Your task to perform on an android device: What is the speed of a rocket? Image 0: 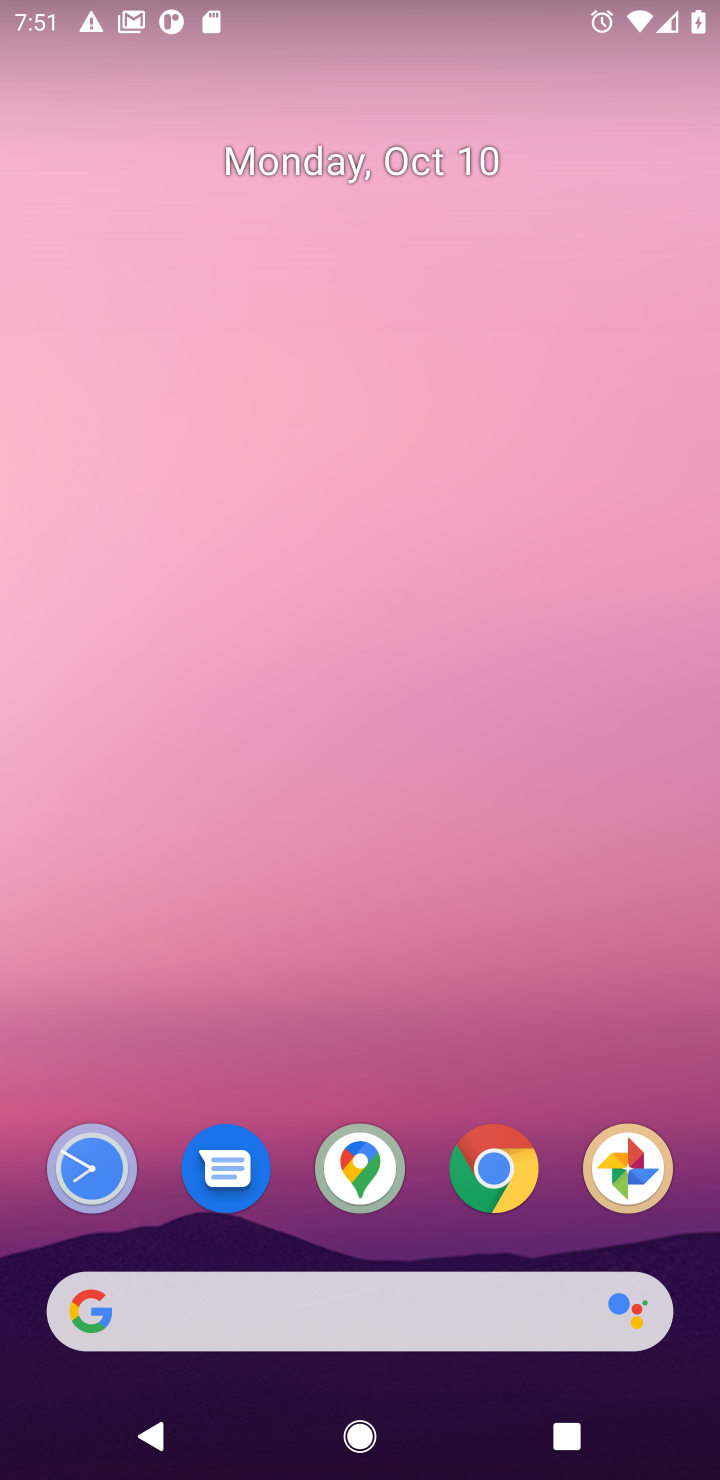
Step 0: click (501, 1166)
Your task to perform on an android device: What is the speed of a rocket? Image 1: 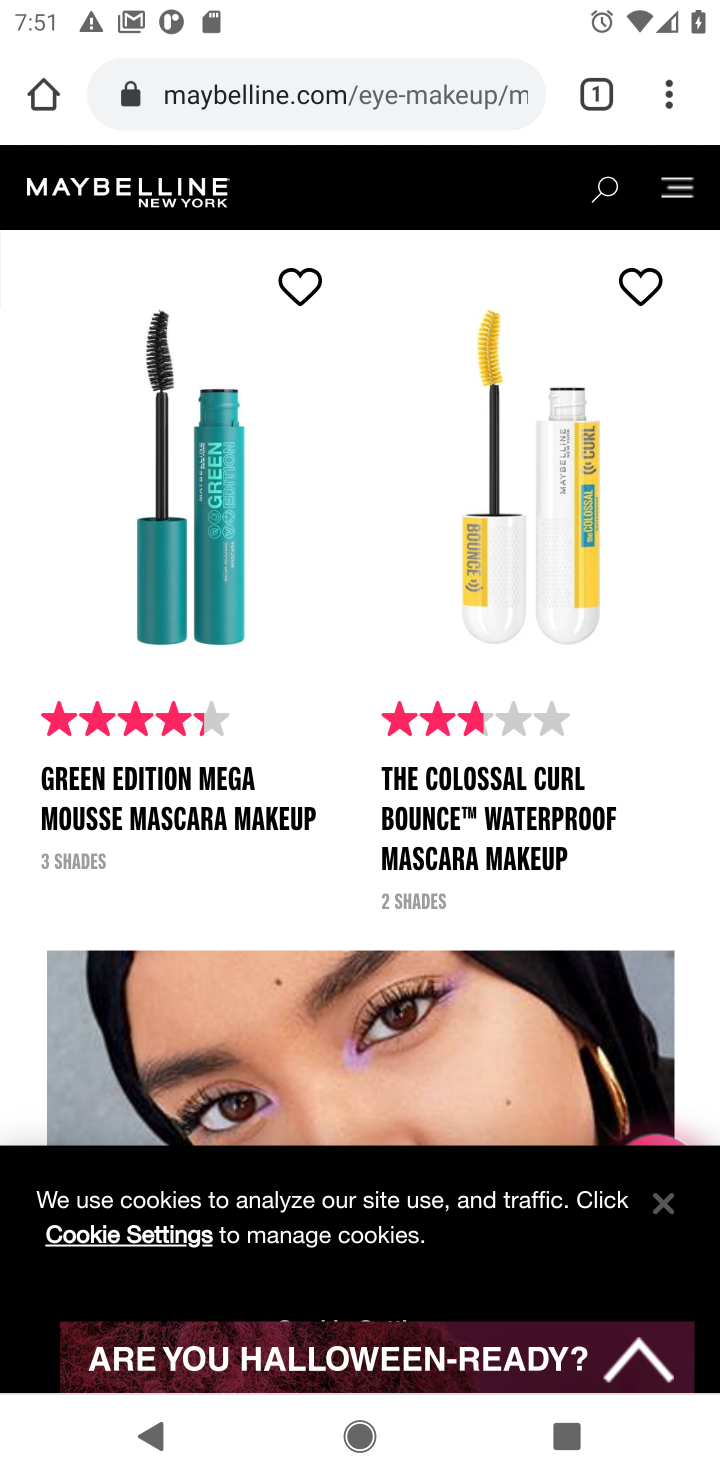
Step 1: click (277, 105)
Your task to perform on an android device: What is the speed of a rocket? Image 2: 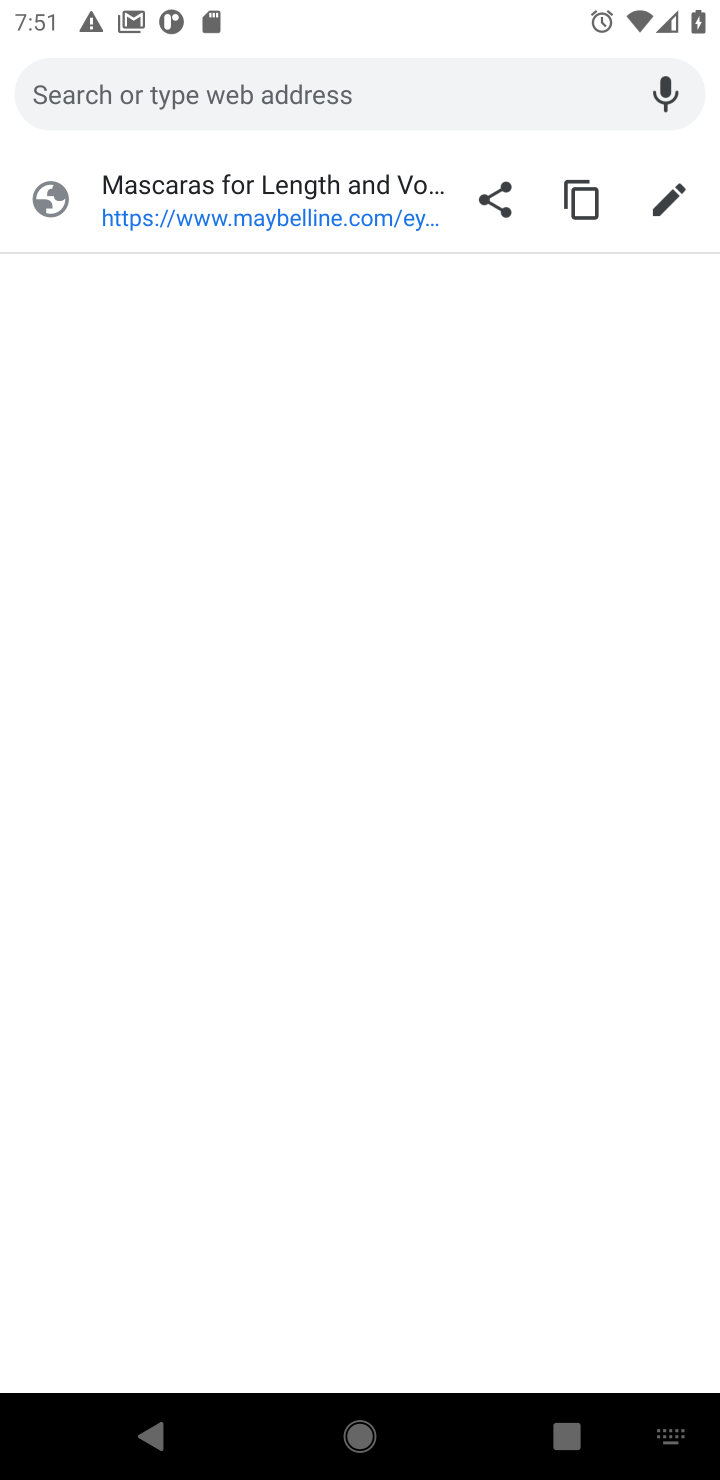
Step 2: type "speed of rocket"
Your task to perform on an android device: What is the speed of a rocket? Image 3: 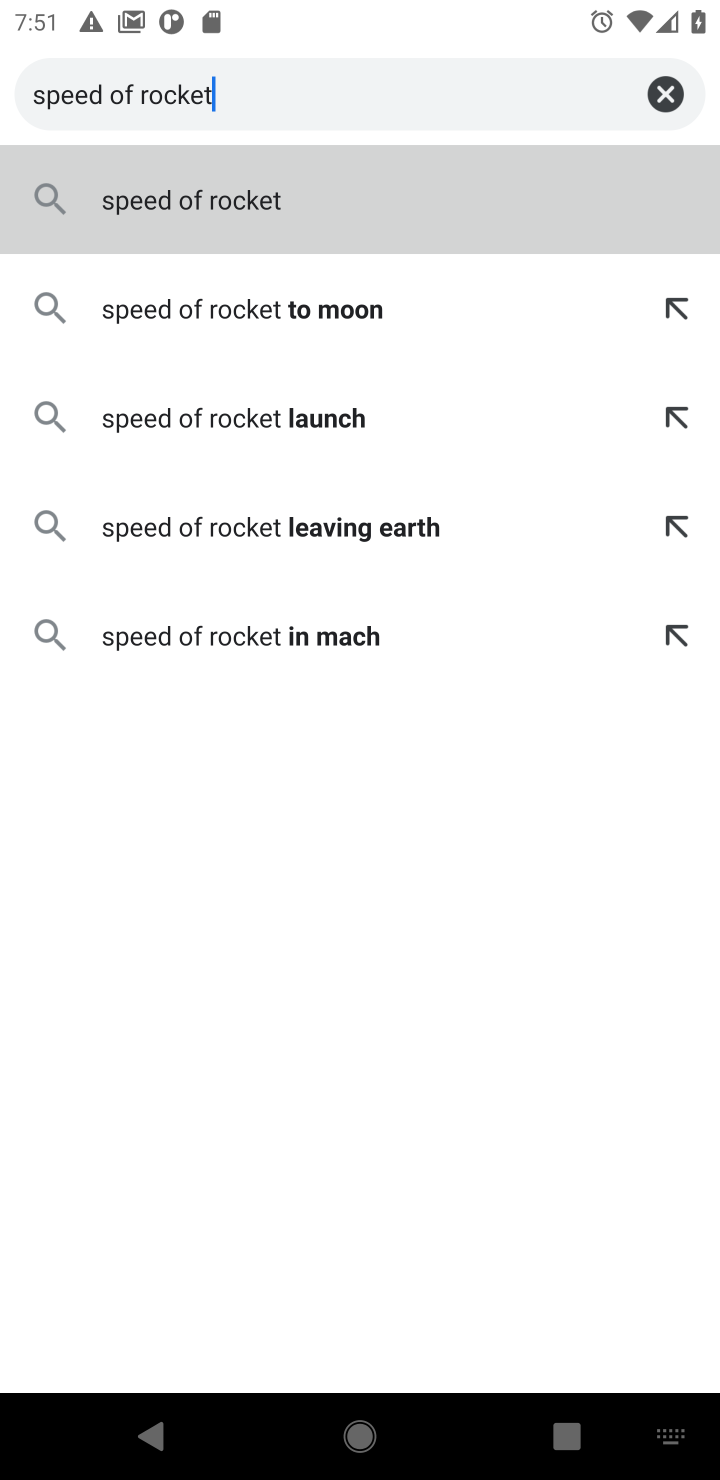
Step 3: click (196, 215)
Your task to perform on an android device: What is the speed of a rocket? Image 4: 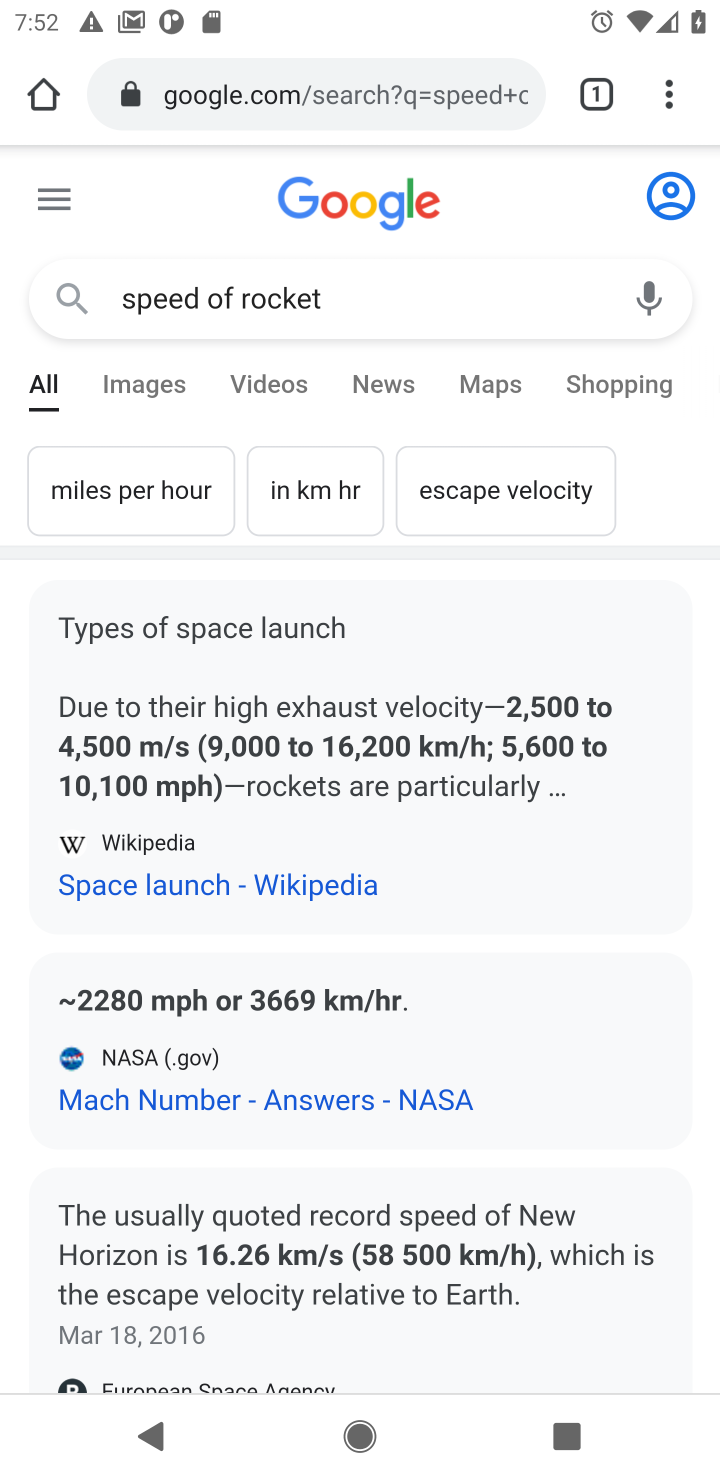
Step 4: task complete